Your task to perform on an android device: uninstall "Upside-Cash back on gas & food" Image 0: 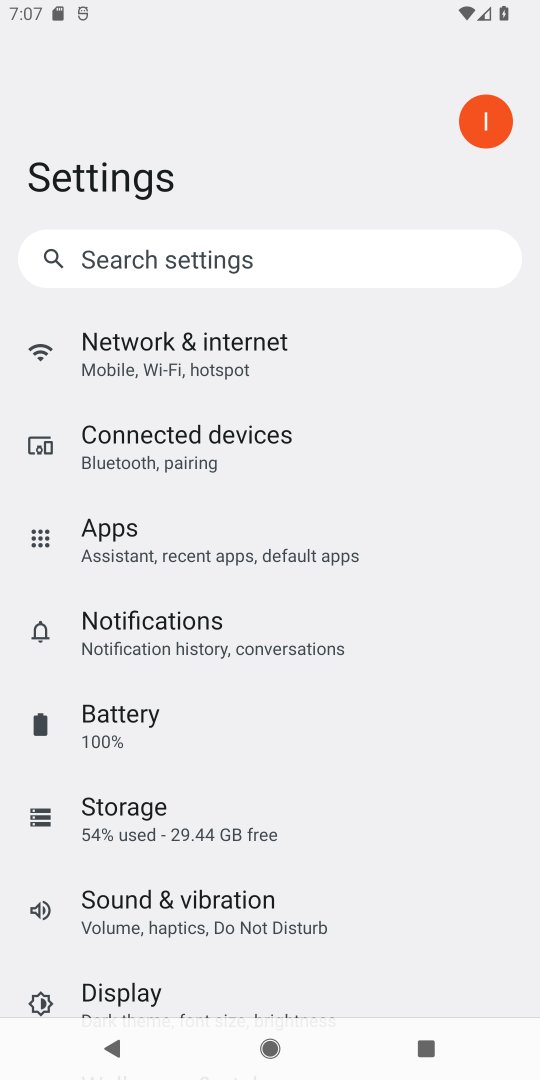
Step 0: press home button
Your task to perform on an android device: uninstall "Upside-Cash back on gas & food" Image 1: 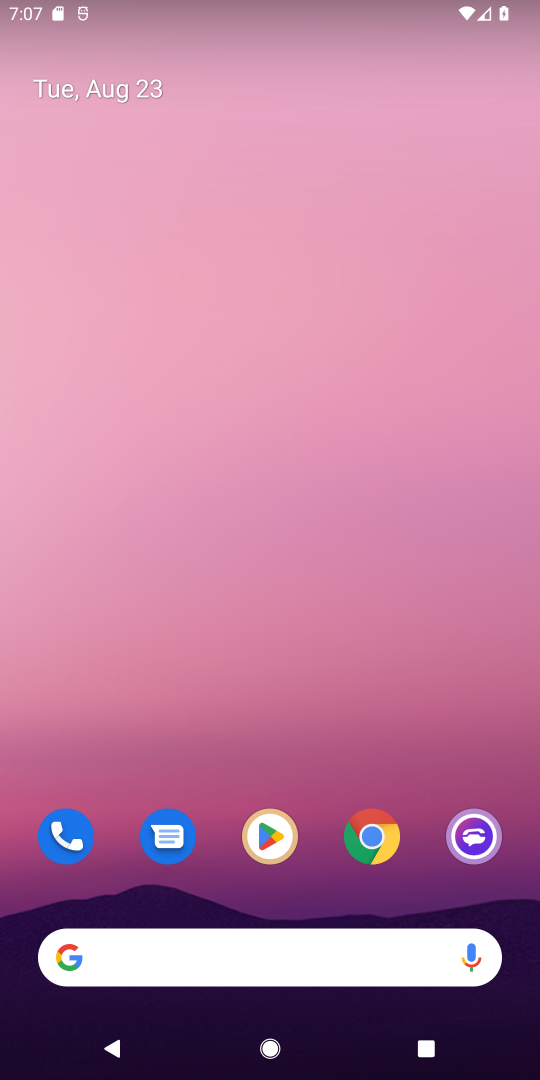
Step 1: click (267, 836)
Your task to perform on an android device: uninstall "Upside-Cash back on gas & food" Image 2: 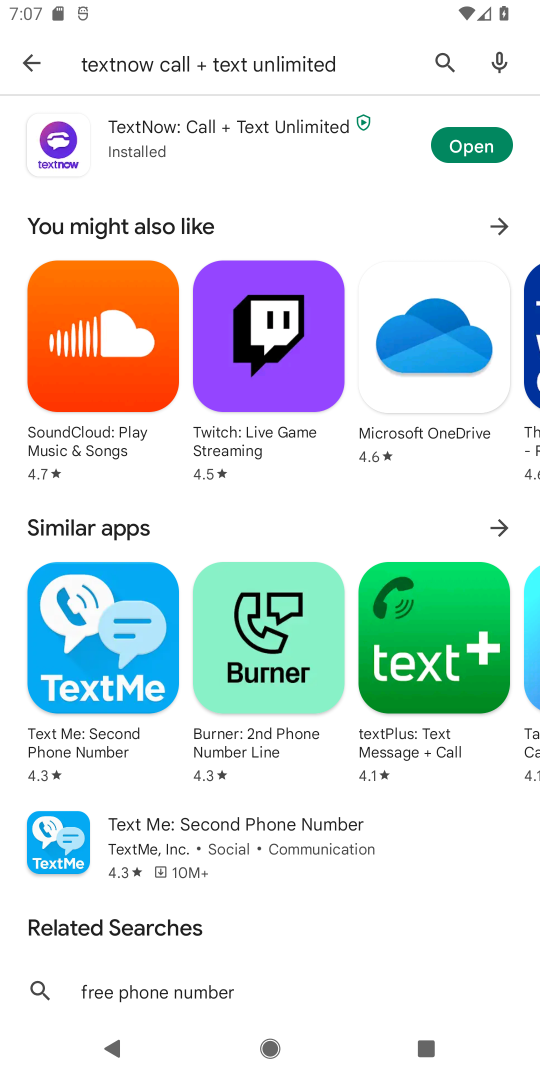
Step 2: click (443, 62)
Your task to perform on an android device: uninstall "Upside-Cash back on gas & food" Image 3: 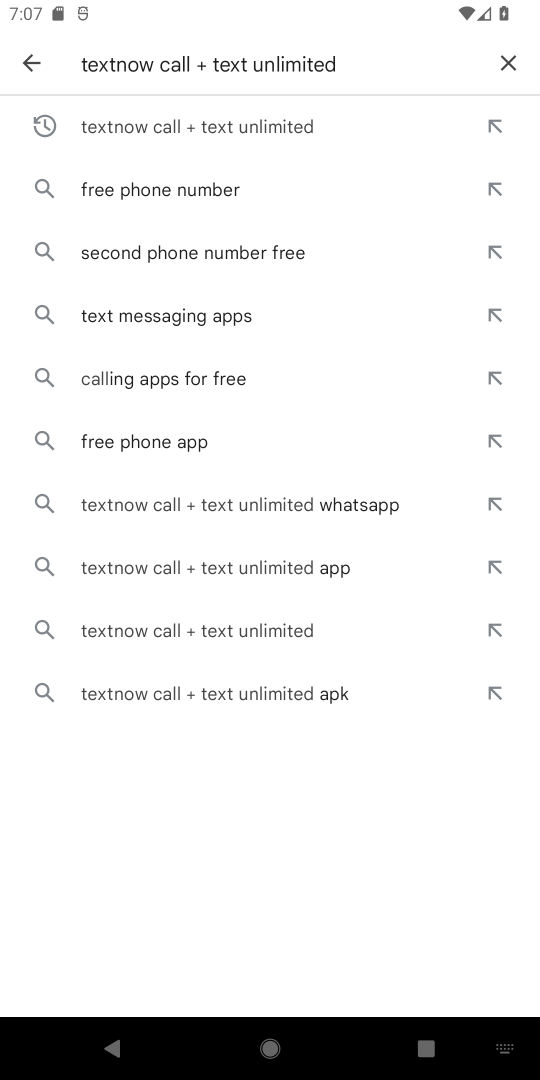
Step 3: click (502, 68)
Your task to perform on an android device: uninstall "Upside-Cash back on gas & food" Image 4: 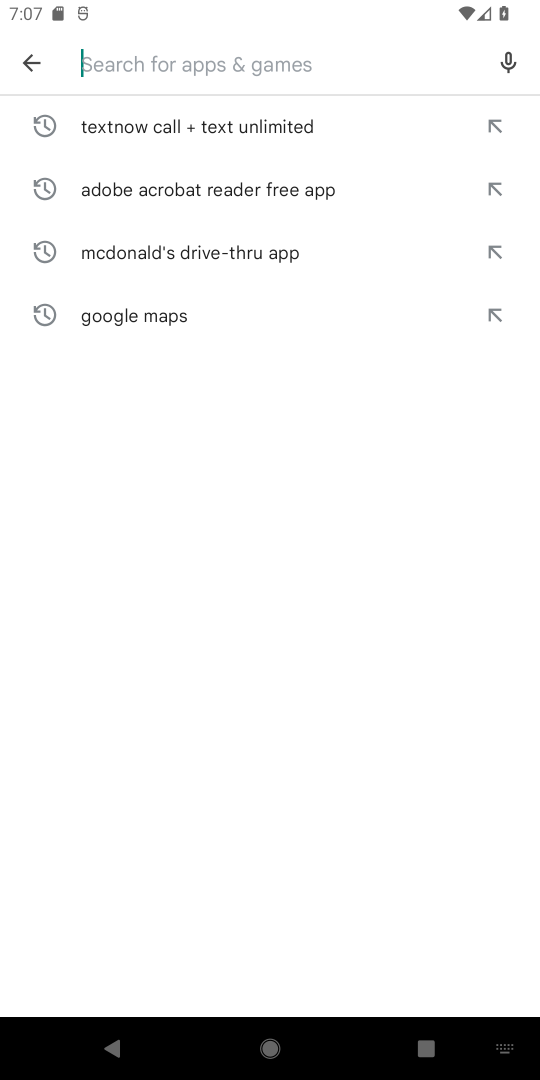
Step 4: type "Upside-Cash back on gas & food"
Your task to perform on an android device: uninstall "Upside-Cash back on gas & food" Image 5: 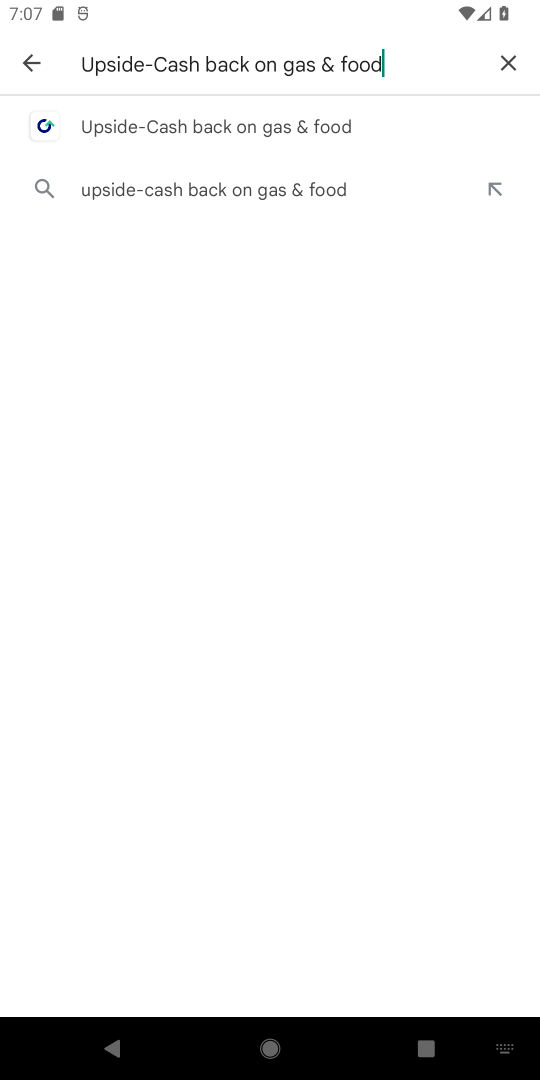
Step 5: click (238, 134)
Your task to perform on an android device: uninstall "Upside-Cash back on gas & food" Image 6: 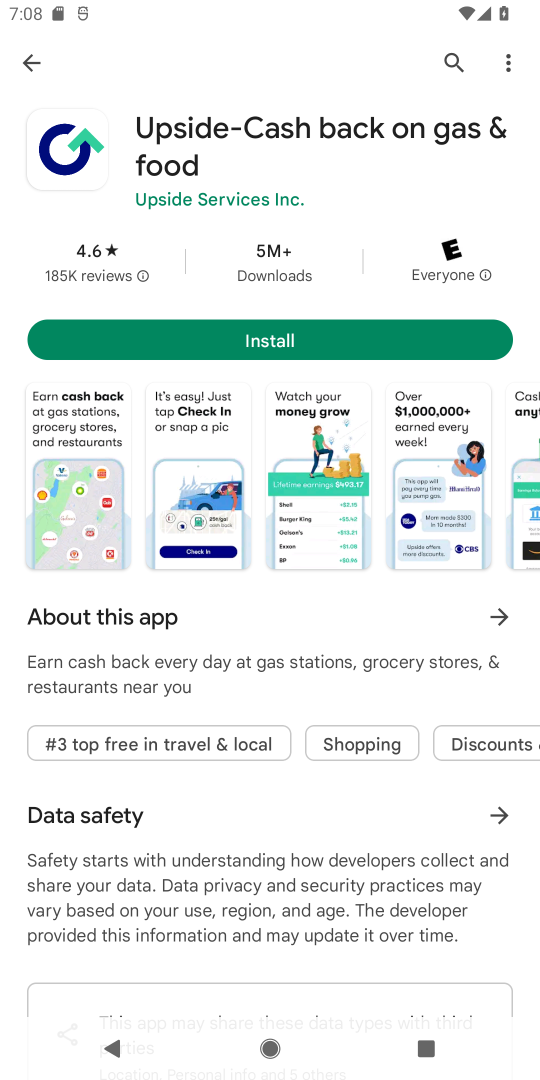
Step 6: task complete